Your task to perform on an android device: Go to Google Image 0: 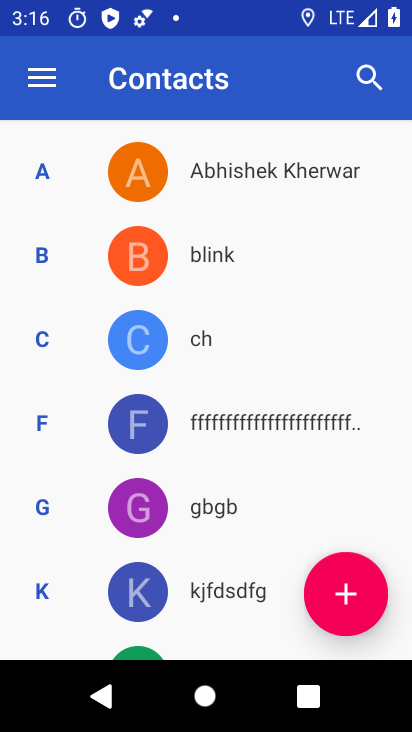
Step 0: press back button
Your task to perform on an android device: Go to Google Image 1: 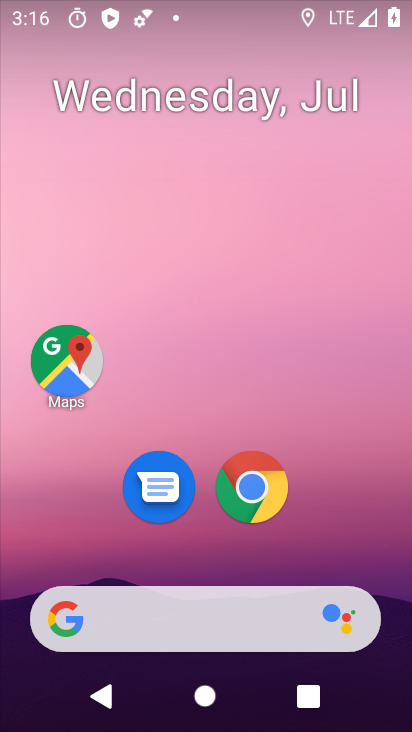
Step 1: drag from (235, 574) to (259, 119)
Your task to perform on an android device: Go to Google Image 2: 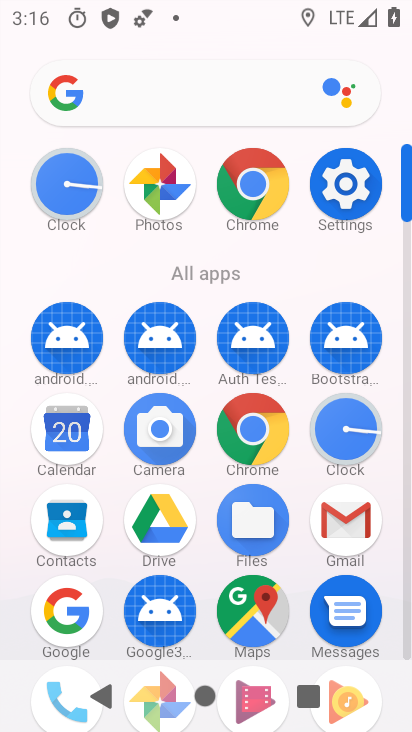
Step 2: click (77, 607)
Your task to perform on an android device: Go to Google Image 3: 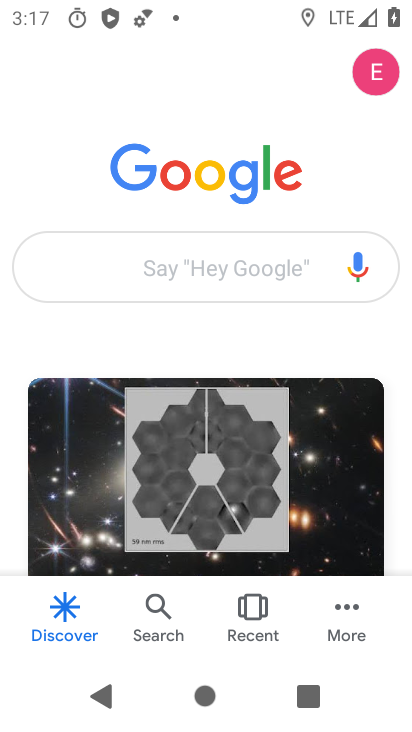
Step 3: task complete